Your task to perform on an android device: check google app version Image 0: 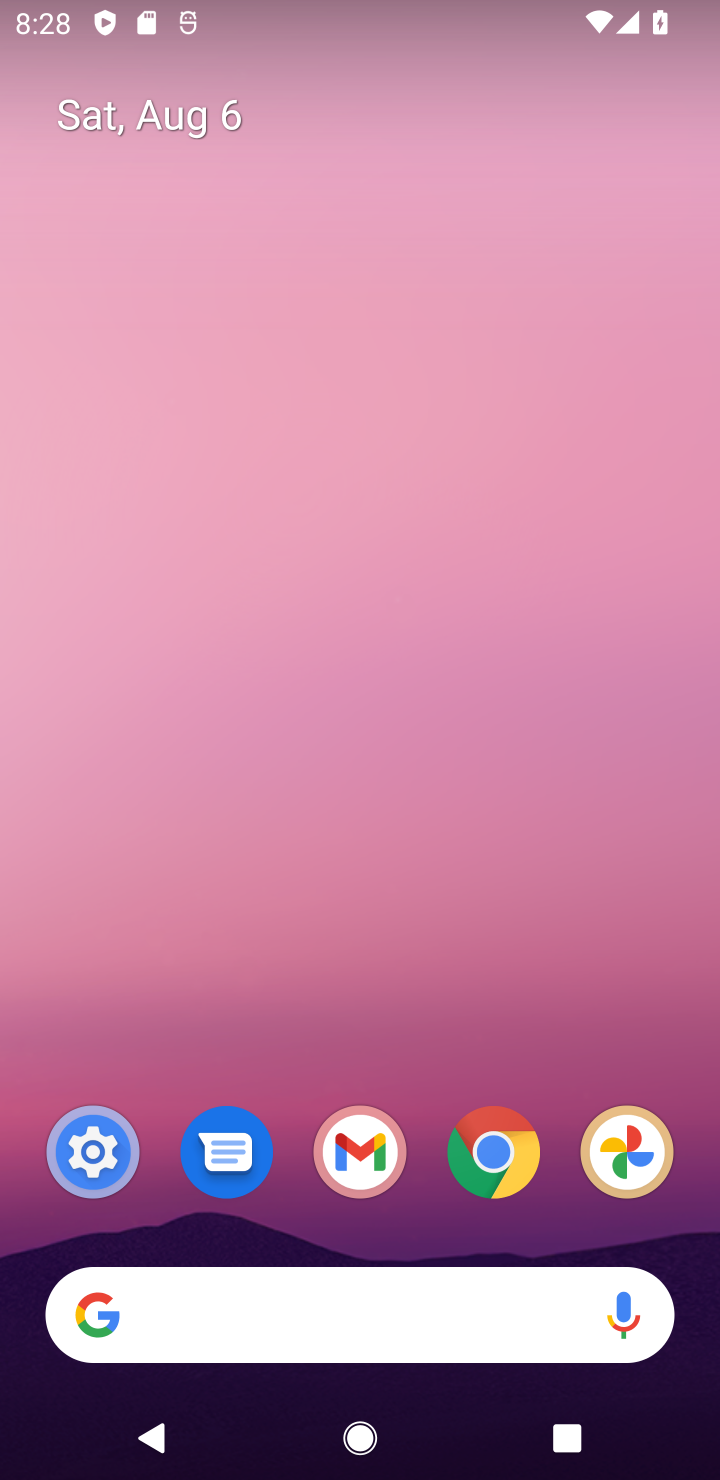
Step 0: drag from (409, 1025) to (378, 153)
Your task to perform on an android device: check google app version Image 1: 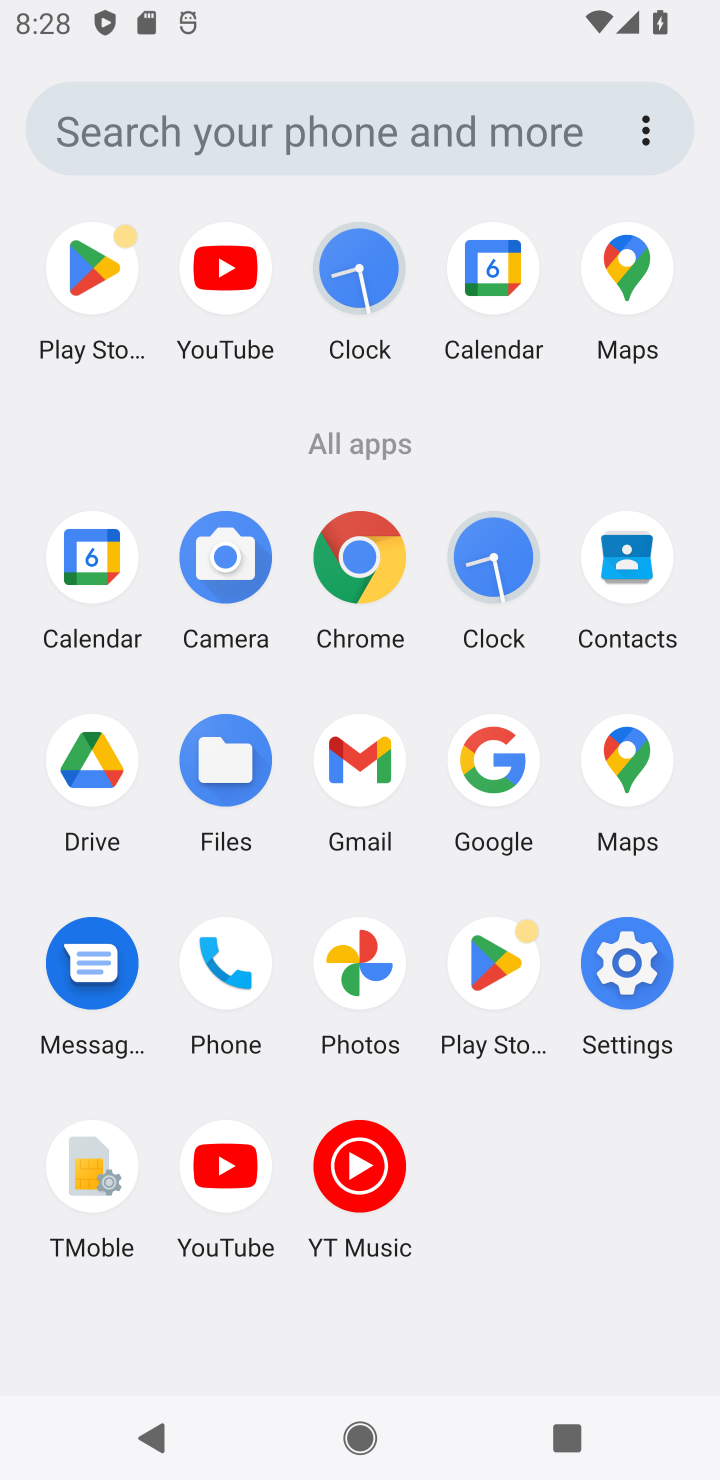
Step 1: click (491, 734)
Your task to perform on an android device: check google app version Image 2: 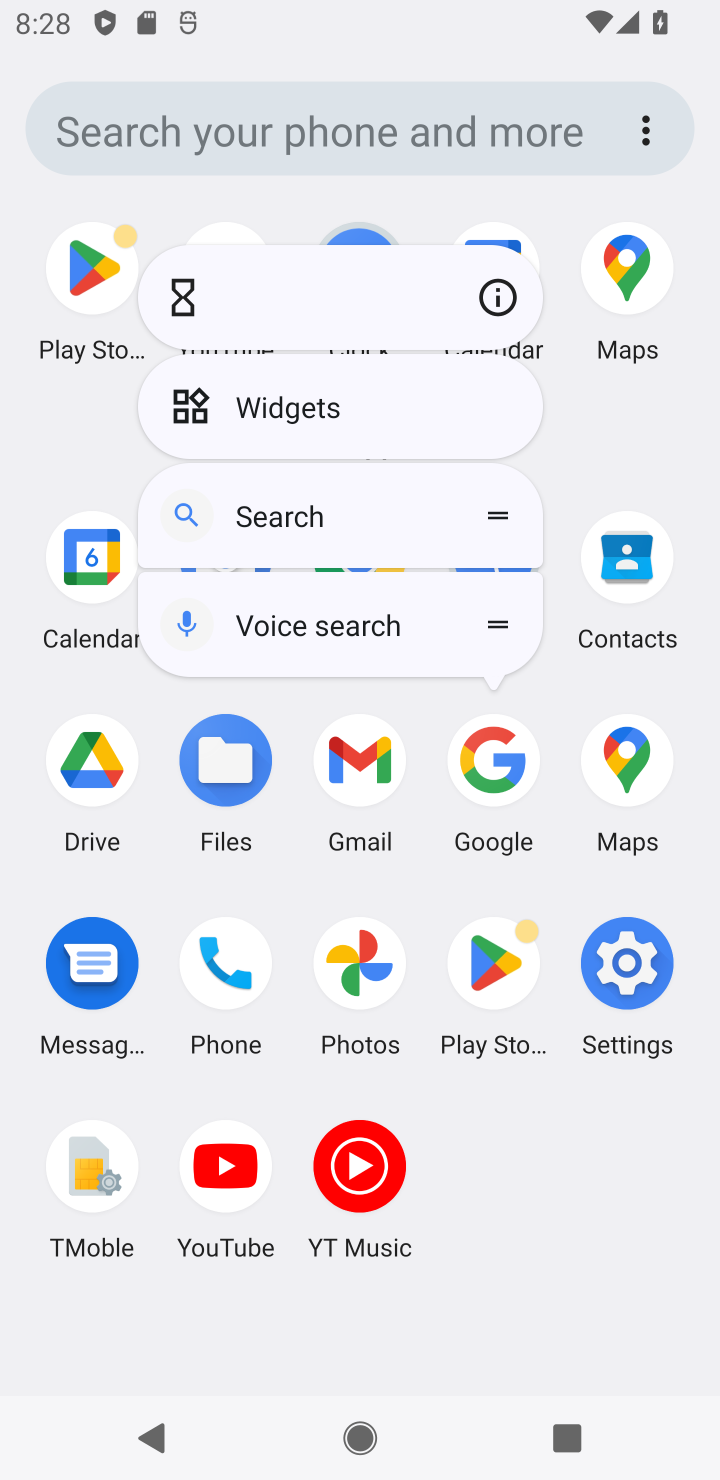
Step 2: click (511, 286)
Your task to perform on an android device: check google app version Image 3: 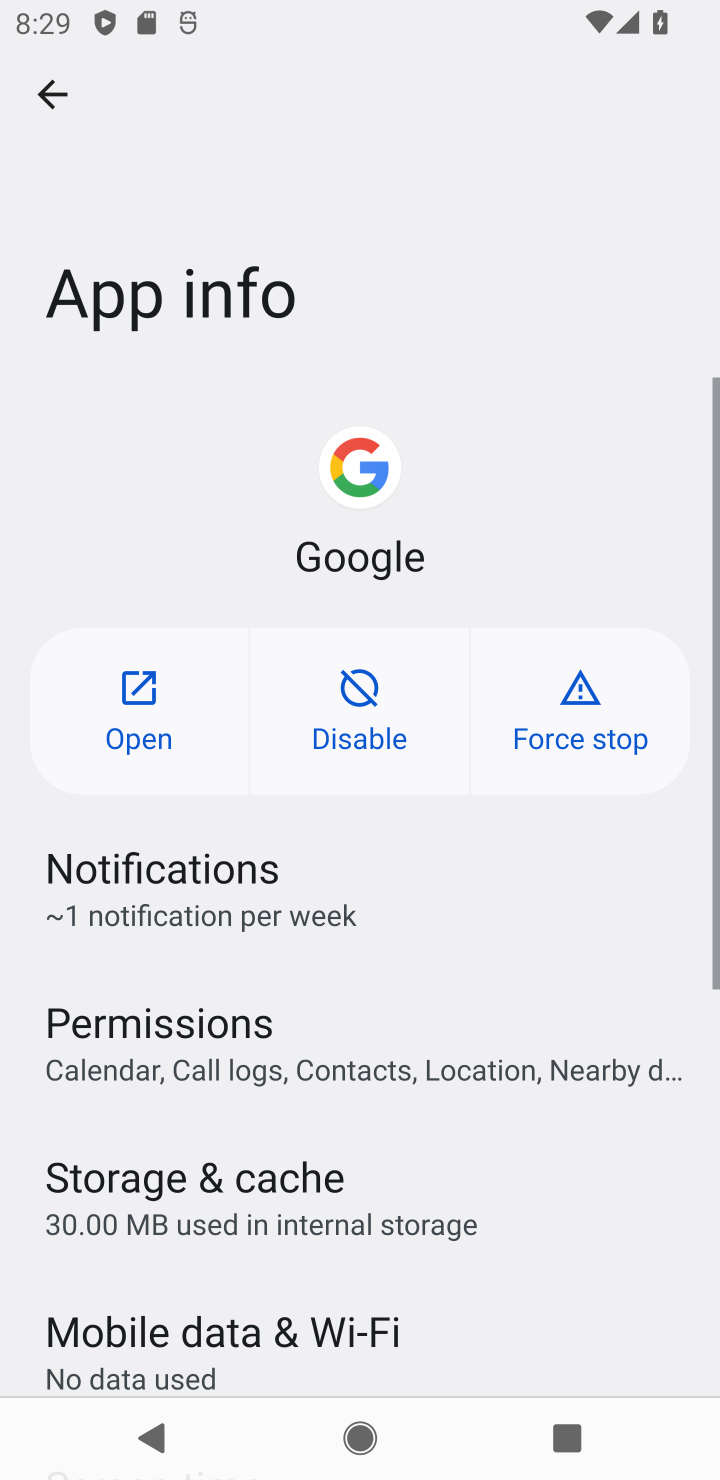
Step 3: task complete